Your task to perform on an android device: Open display settings Image 0: 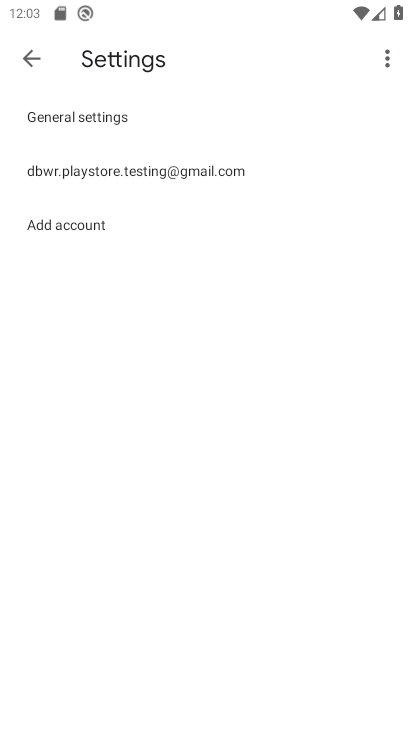
Step 0: press home button
Your task to perform on an android device: Open display settings Image 1: 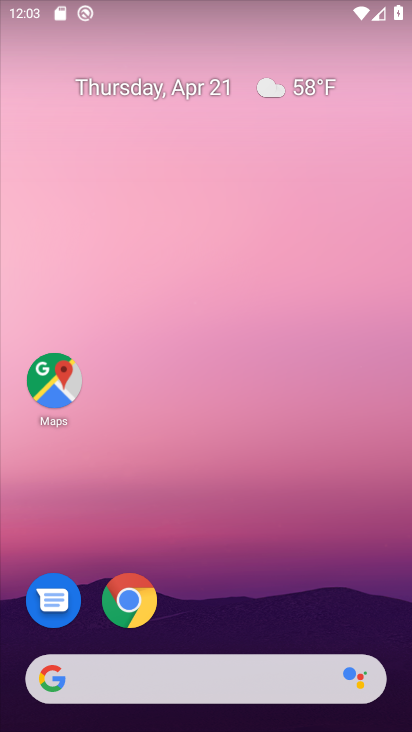
Step 1: drag from (276, 372) to (274, 87)
Your task to perform on an android device: Open display settings Image 2: 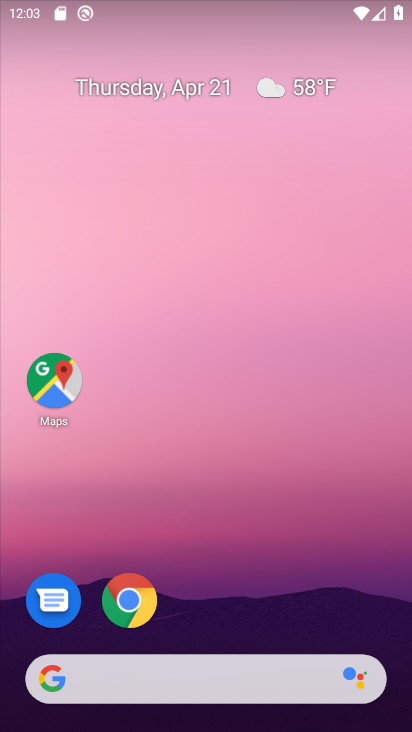
Step 2: drag from (228, 542) to (243, 149)
Your task to perform on an android device: Open display settings Image 3: 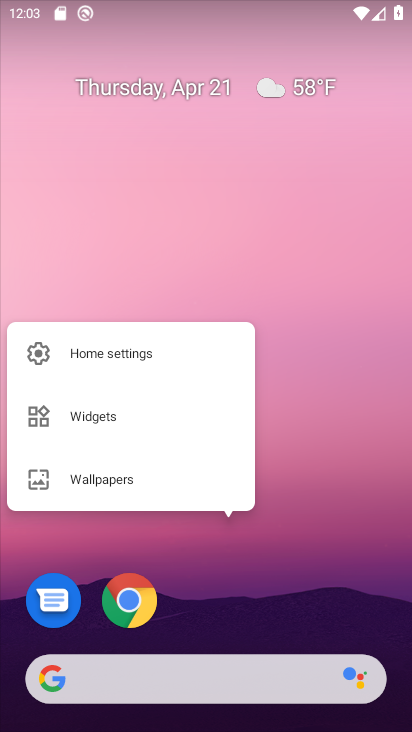
Step 3: drag from (296, 567) to (349, 148)
Your task to perform on an android device: Open display settings Image 4: 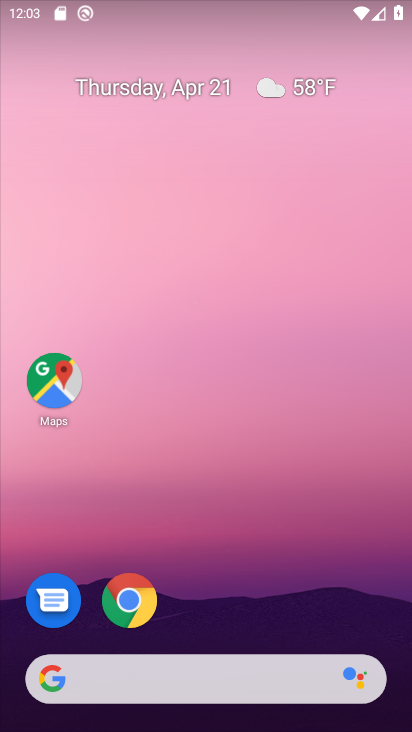
Step 4: drag from (265, 555) to (289, 109)
Your task to perform on an android device: Open display settings Image 5: 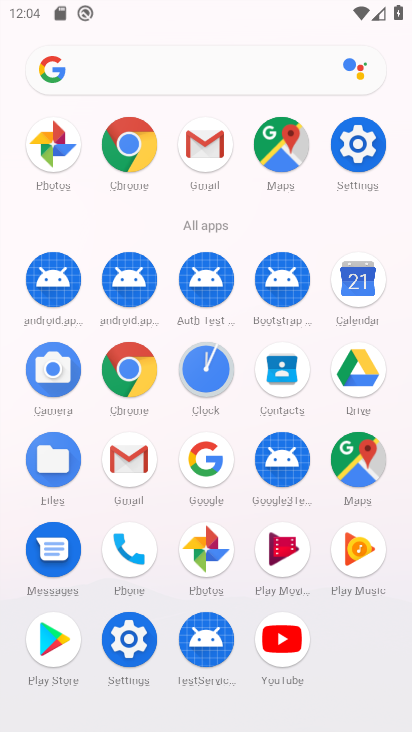
Step 5: click (369, 143)
Your task to perform on an android device: Open display settings Image 6: 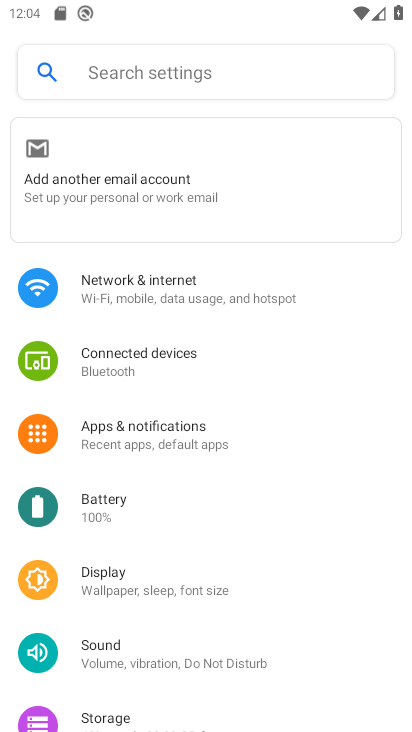
Step 6: click (153, 586)
Your task to perform on an android device: Open display settings Image 7: 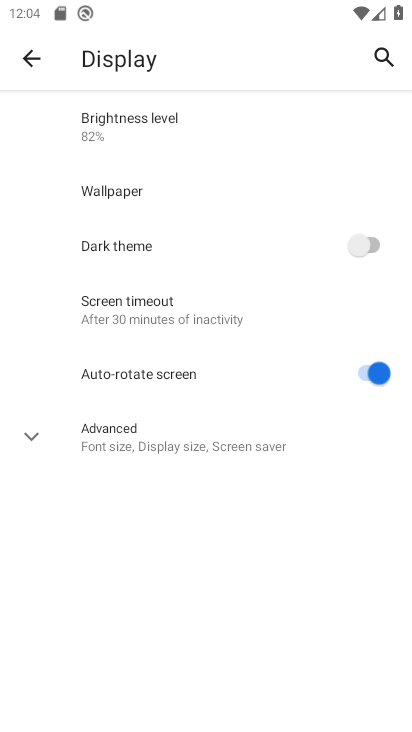
Step 7: task complete